Your task to perform on an android device: turn off picture-in-picture Image 0: 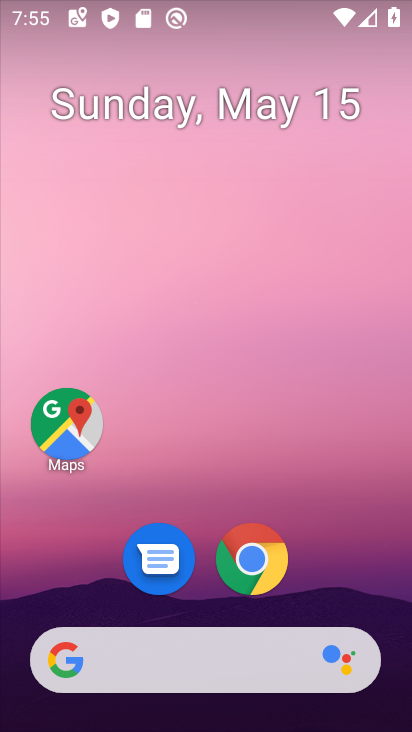
Step 0: drag from (357, 551) to (327, 58)
Your task to perform on an android device: turn off picture-in-picture Image 1: 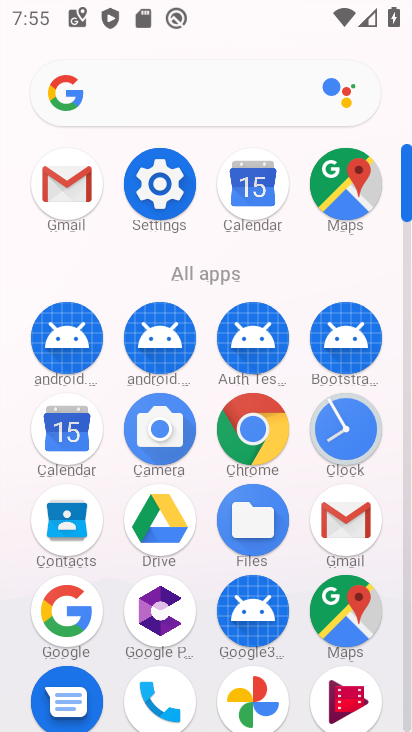
Step 1: click (176, 161)
Your task to perform on an android device: turn off picture-in-picture Image 2: 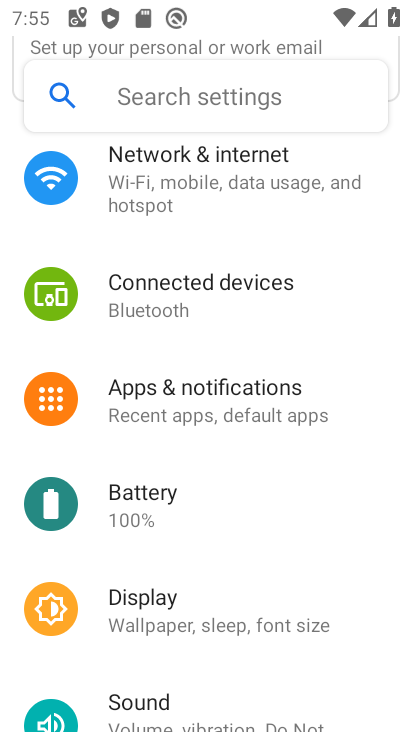
Step 2: drag from (185, 639) to (227, 393)
Your task to perform on an android device: turn off picture-in-picture Image 3: 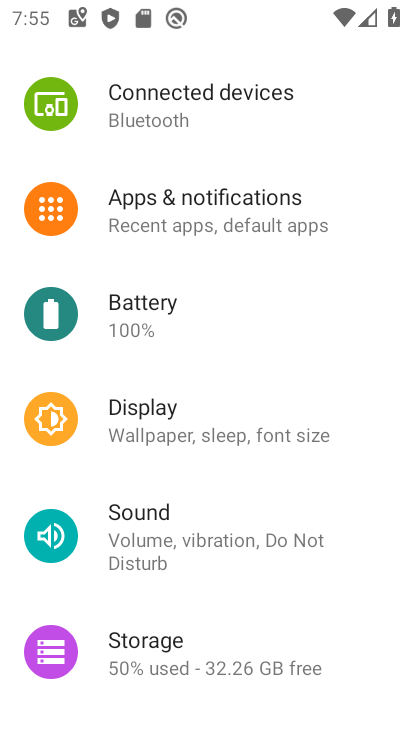
Step 3: click (265, 221)
Your task to perform on an android device: turn off picture-in-picture Image 4: 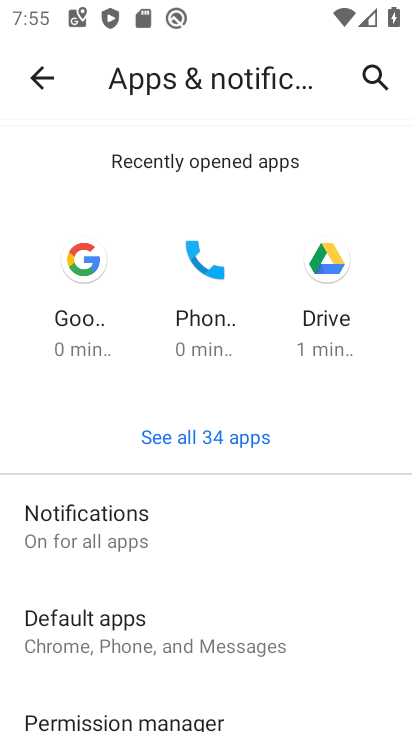
Step 4: drag from (214, 520) to (246, 199)
Your task to perform on an android device: turn off picture-in-picture Image 5: 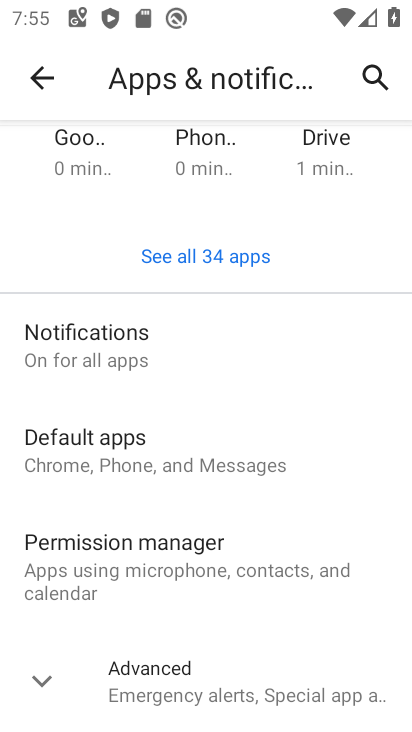
Step 5: click (216, 668)
Your task to perform on an android device: turn off picture-in-picture Image 6: 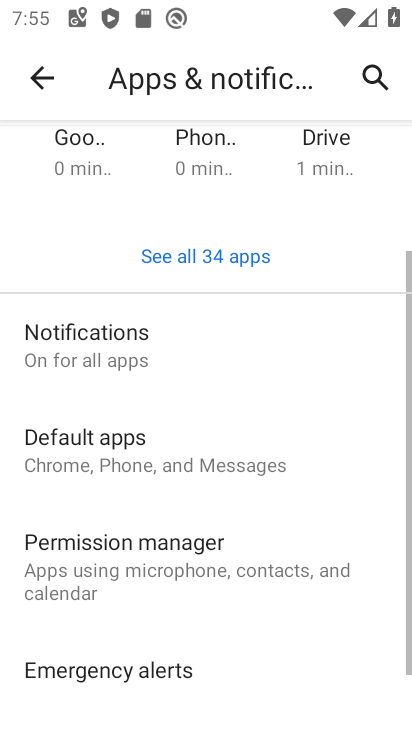
Step 6: drag from (236, 631) to (259, 226)
Your task to perform on an android device: turn off picture-in-picture Image 7: 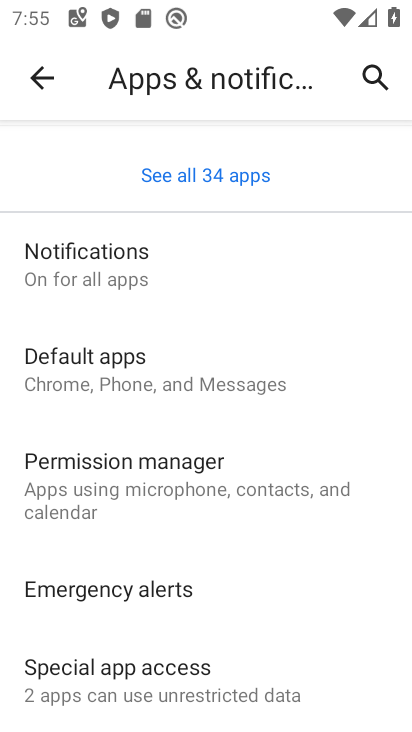
Step 7: click (227, 700)
Your task to perform on an android device: turn off picture-in-picture Image 8: 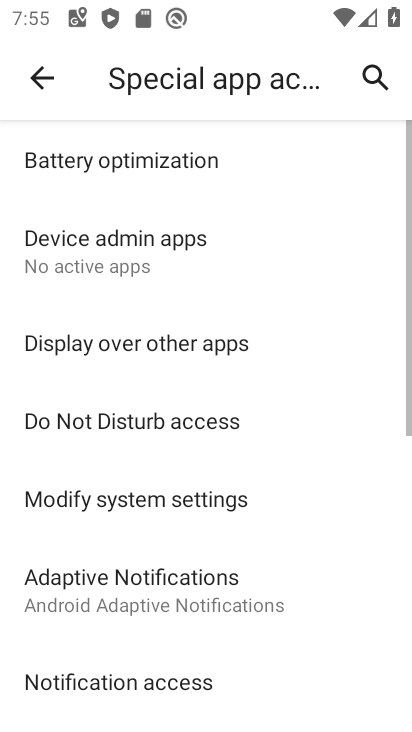
Step 8: drag from (227, 660) to (240, 398)
Your task to perform on an android device: turn off picture-in-picture Image 9: 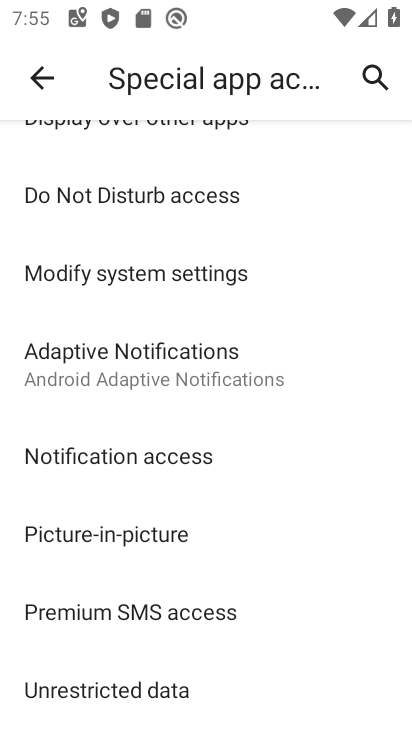
Step 9: drag from (255, 644) to (272, 465)
Your task to perform on an android device: turn off picture-in-picture Image 10: 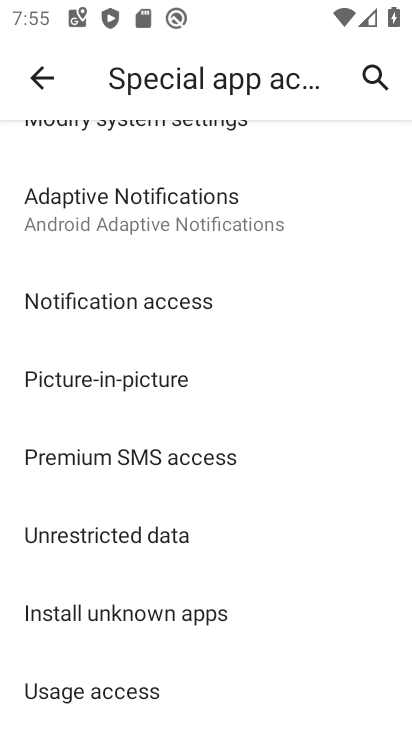
Step 10: drag from (212, 686) to (249, 428)
Your task to perform on an android device: turn off picture-in-picture Image 11: 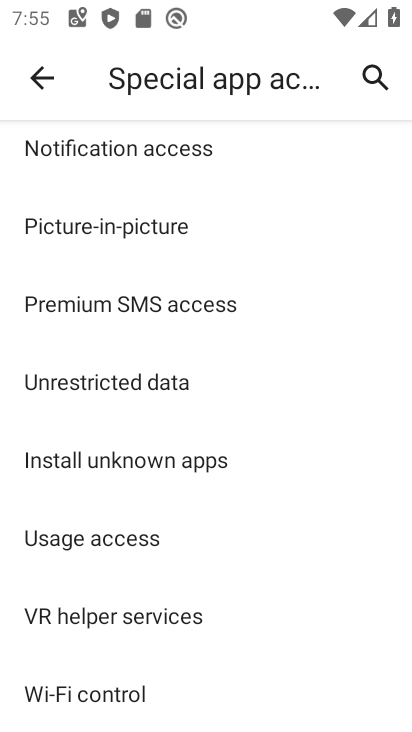
Step 11: drag from (203, 670) to (229, 375)
Your task to perform on an android device: turn off picture-in-picture Image 12: 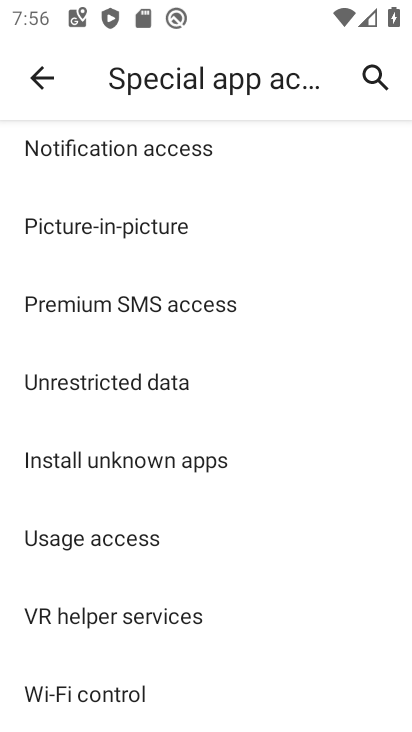
Step 12: click (213, 245)
Your task to perform on an android device: turn off picture-in-picture Image 13: 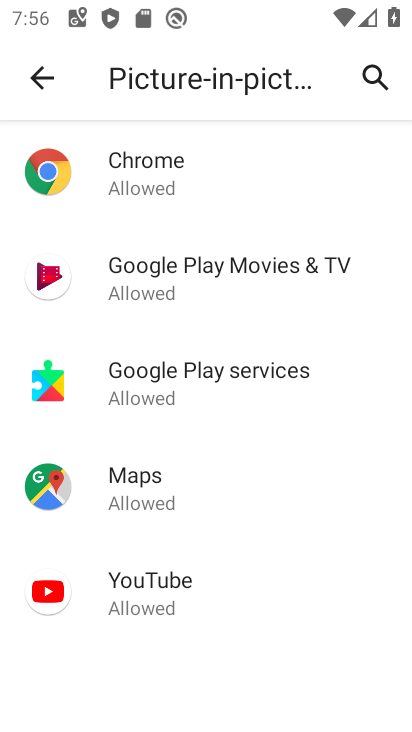
Step 13: click (264, 140)
Your task to perform on an android device: turn off picture-in-picture Image 14: 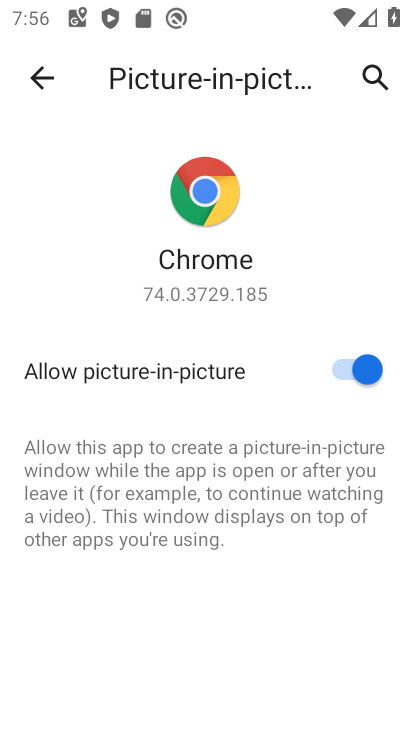
Step 14: click (375, 394)
Your task to perform on an android device: turn off picture-in-picture Image 15: 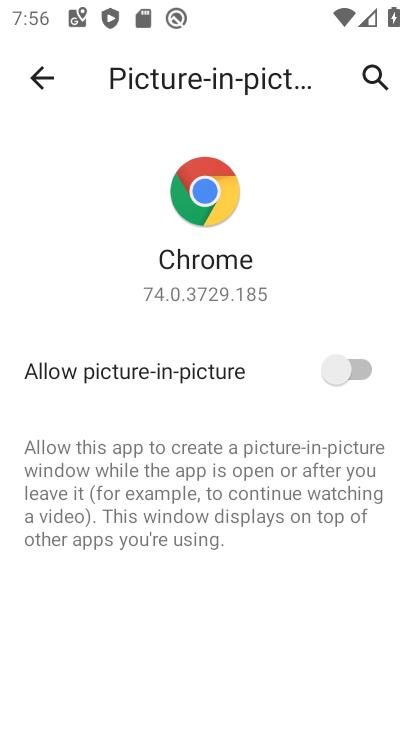
Step 15: task complete